Your task to perform on an android device: Go to sound settings Image 0: 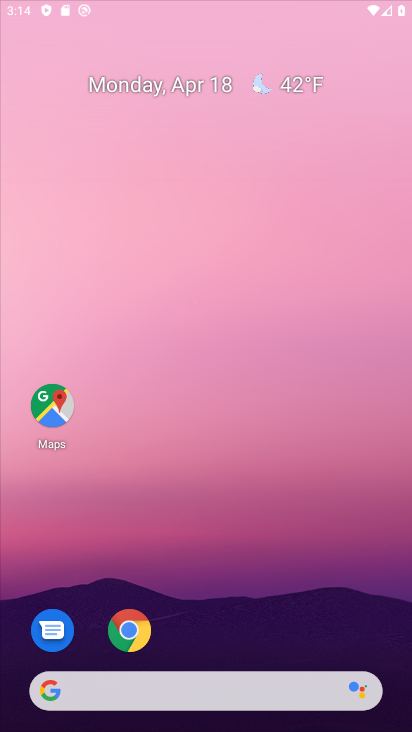
Step 0: click (199, 194)
Your task to perform on an android device: Go to sound settings Image 1: 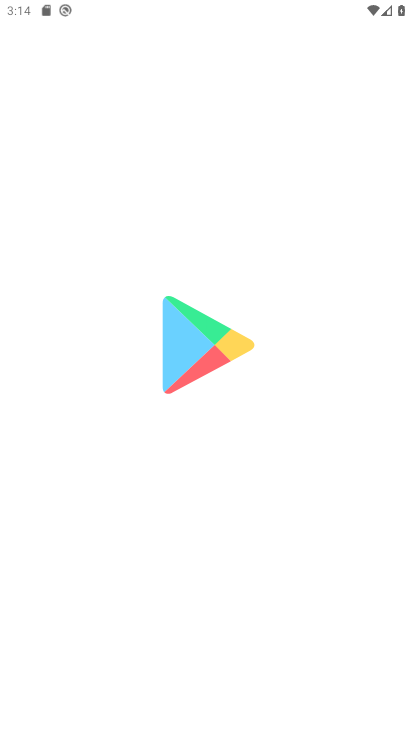
Step 1: drag from (208, 470) to (210, 316)
Your task to perform on an android device: Go to sound settings Image 2: 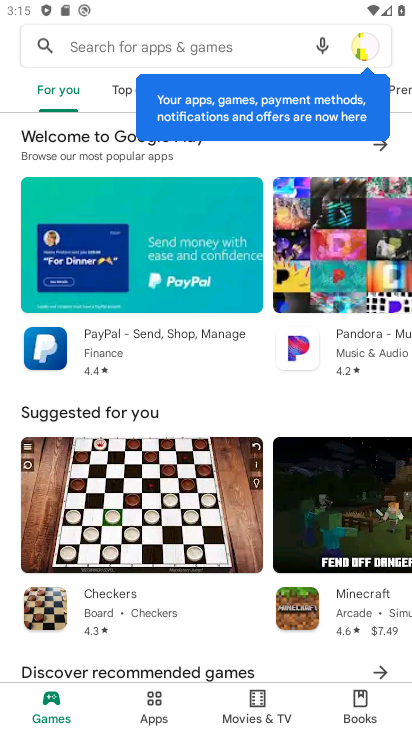
Step 2: press home button
Your task to perform on an android device: Go to sound settings Image 3: 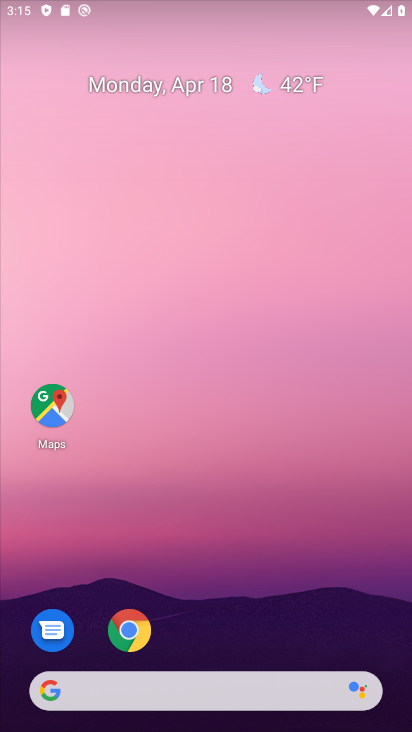
Step 3: drag from (228, 586) to (226, 234)
Your task to perform on an android device: Go to sound settings Image 4: 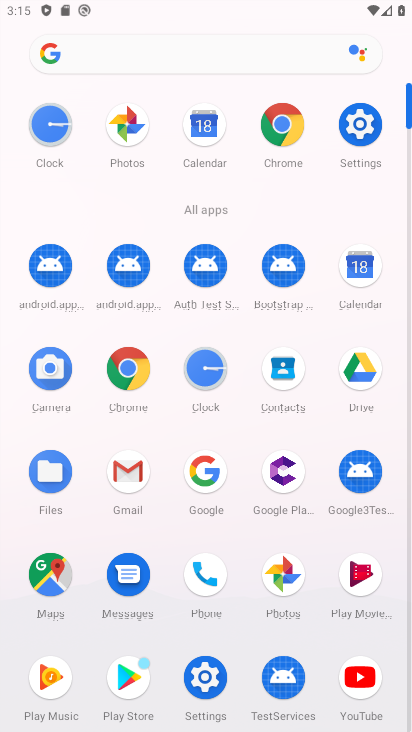
Step 4: click (354, 124)
Your task to perform on an android device: Go to sound settings Image 5: 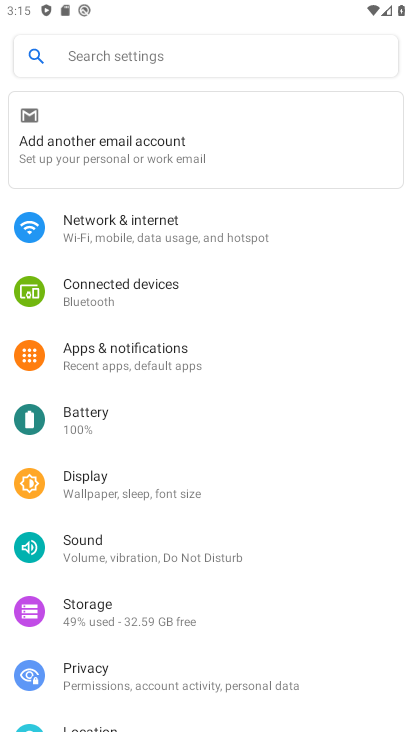
Step 5: click (110, 539)
Your task to perform on an android device: Go to sound settings Image 6: 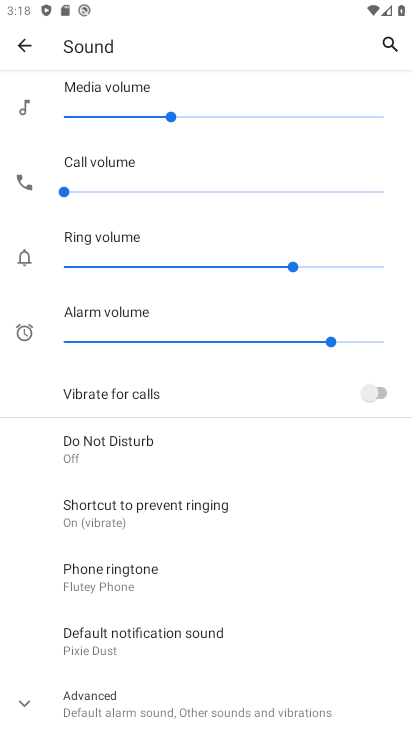
Step 6: task complete